Your task to perform on an android device: Search for the best deal on a 3d printer on aliexpress Image 0: 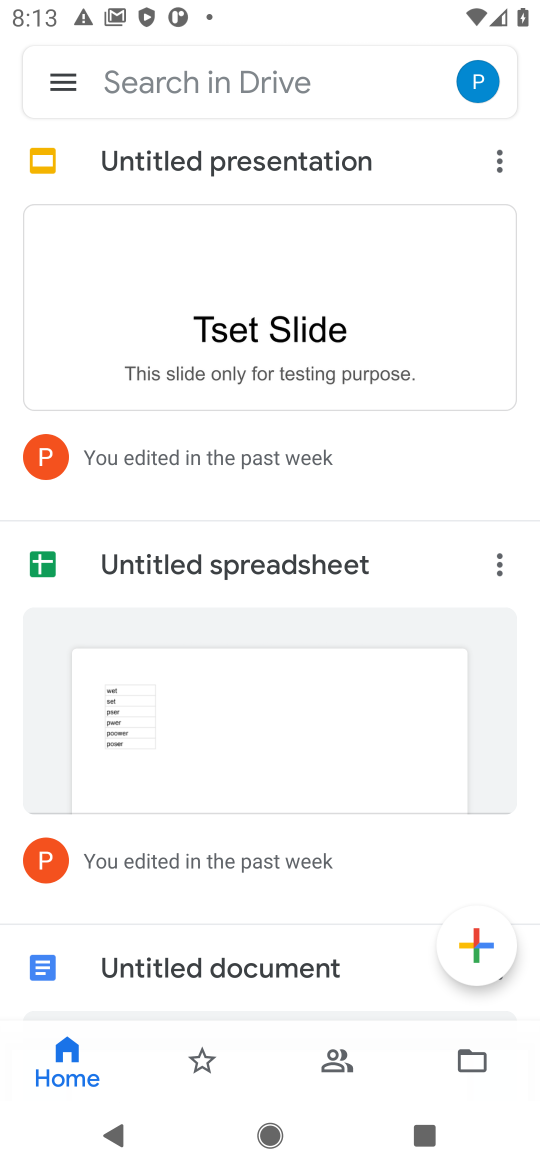
Step 0: press home button
Your task to perform on an android device: Search for the best deal on a 3d printer on aliexpress Image 1: 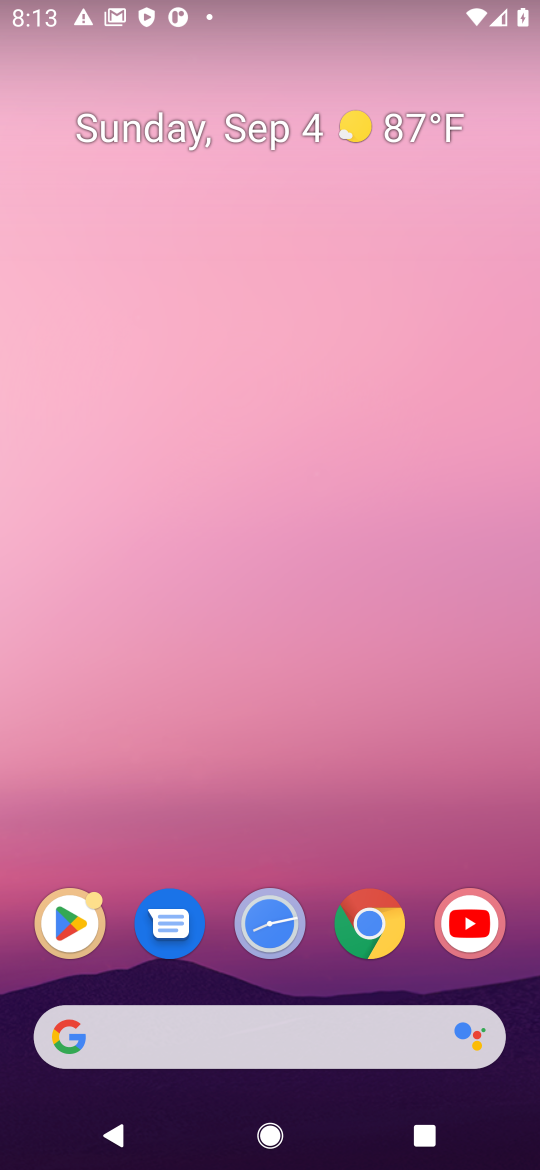
Step 1: click (376, 1043)
Your task to perform on an android device: Search for the best deal on a 3d printer on aliexpress Image 2: 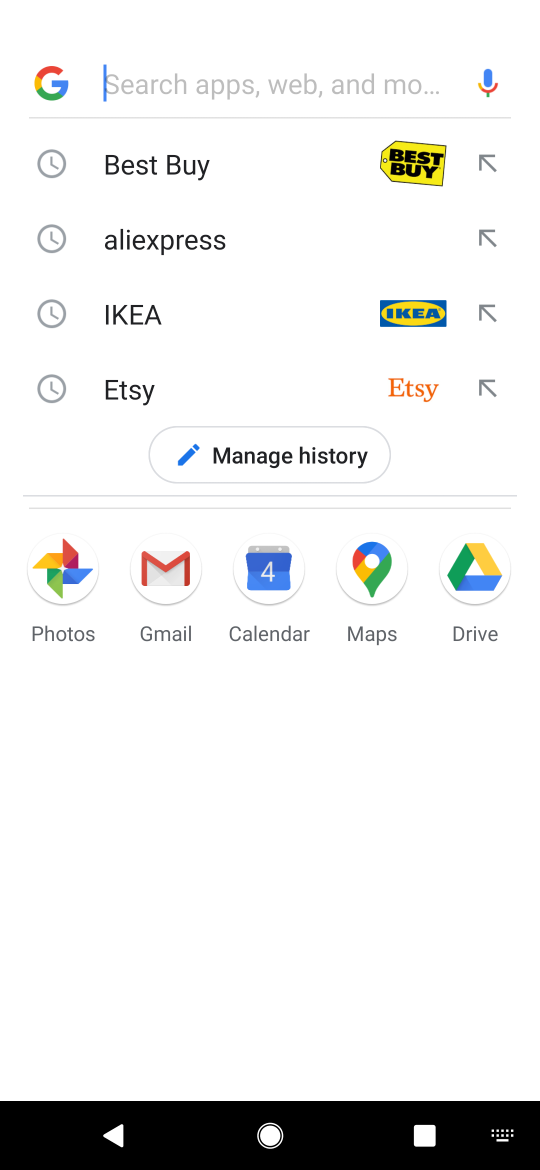
Step 2: press enter
Your task to perform on an android device: Search for the best deal on a 3d printer on aliexpress Image 3: 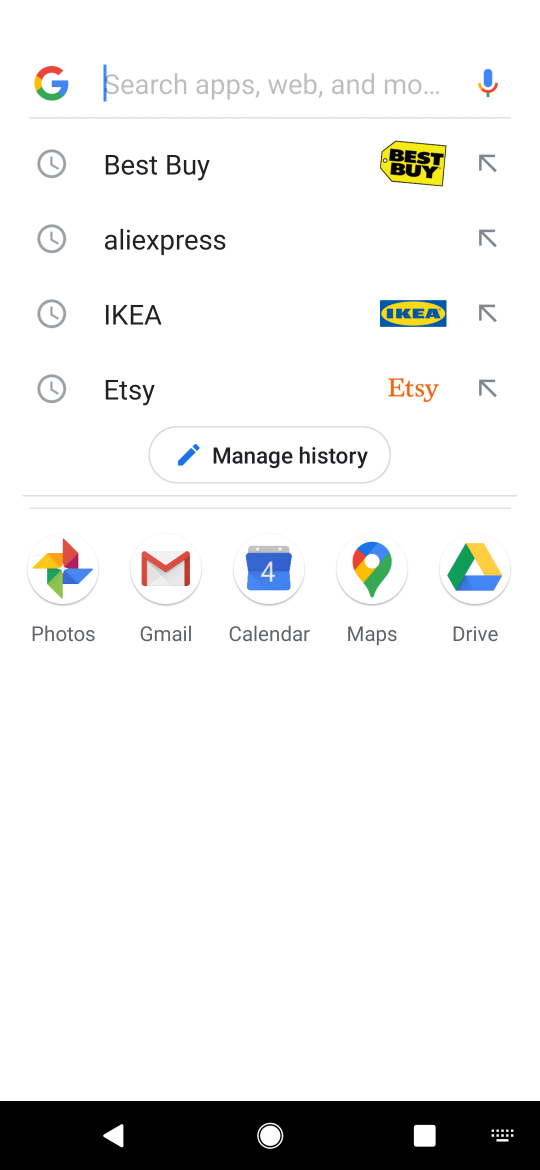
Step 3: type "aliexpress"
Your task to perform on an android device: Search for the best deal on a 3d printer on aliexpress Image 4: 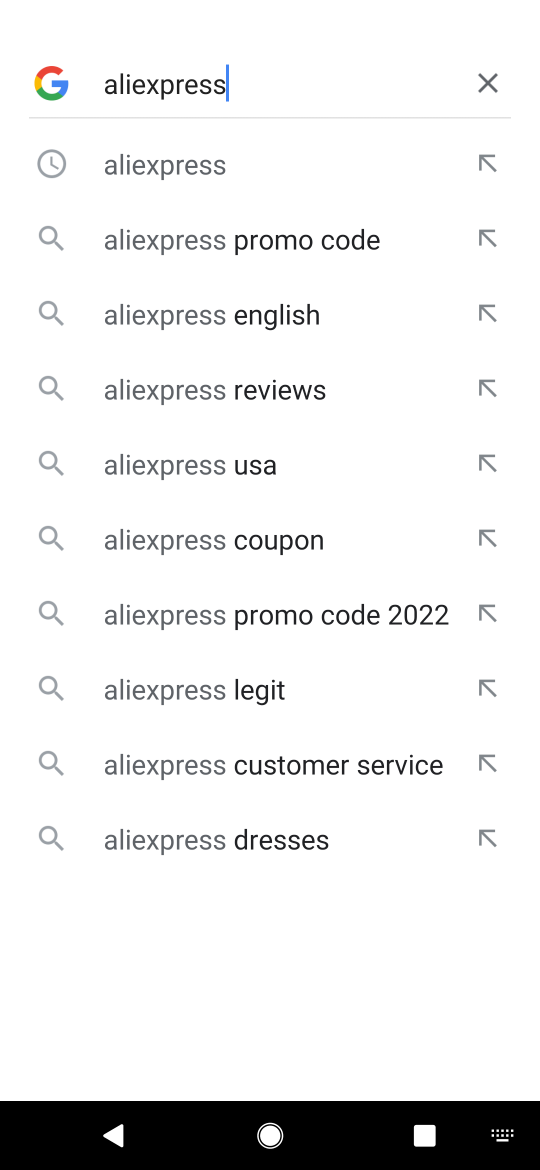
Step 4: click (223, 157)
Your task to perform on an android device: Search for the best deal on a 3d printer on aliexpress Image 5: 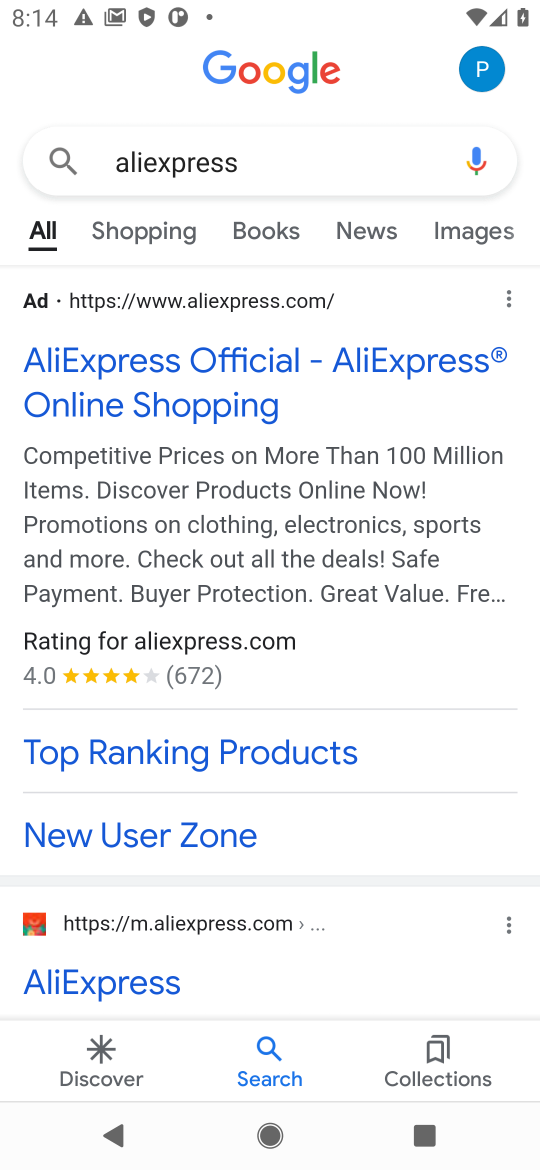
Step 5: click (273, 360)
Your task to perform on an android device: Search for the best deal on a 3d printer on aliexpress Image 6: 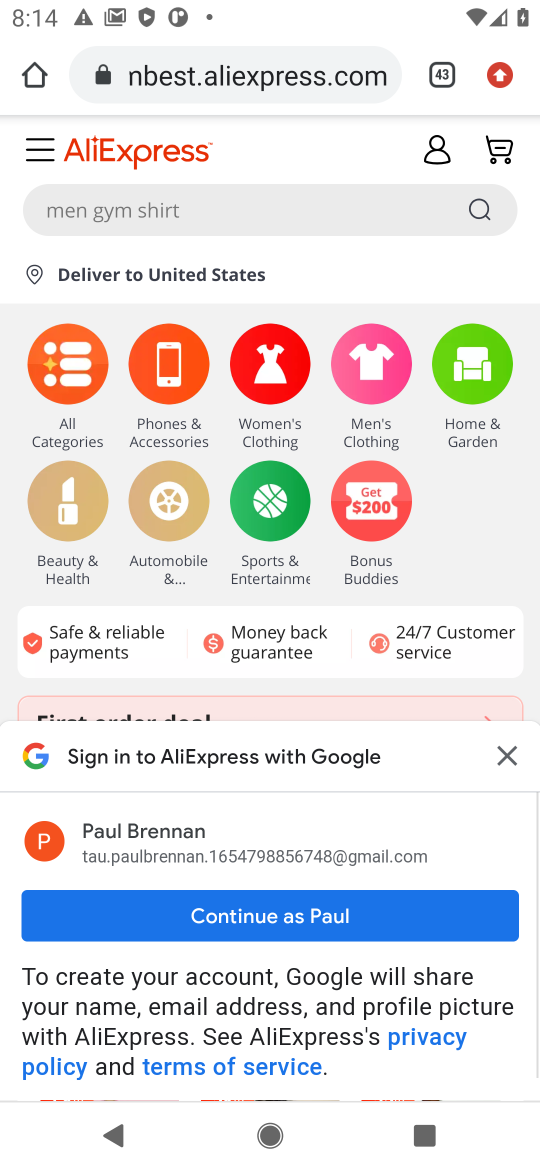
Step 6: click (272, 212)
Your task to perform on an android device: Search for the best deal on a 3d printer on aliexpress Image 7: 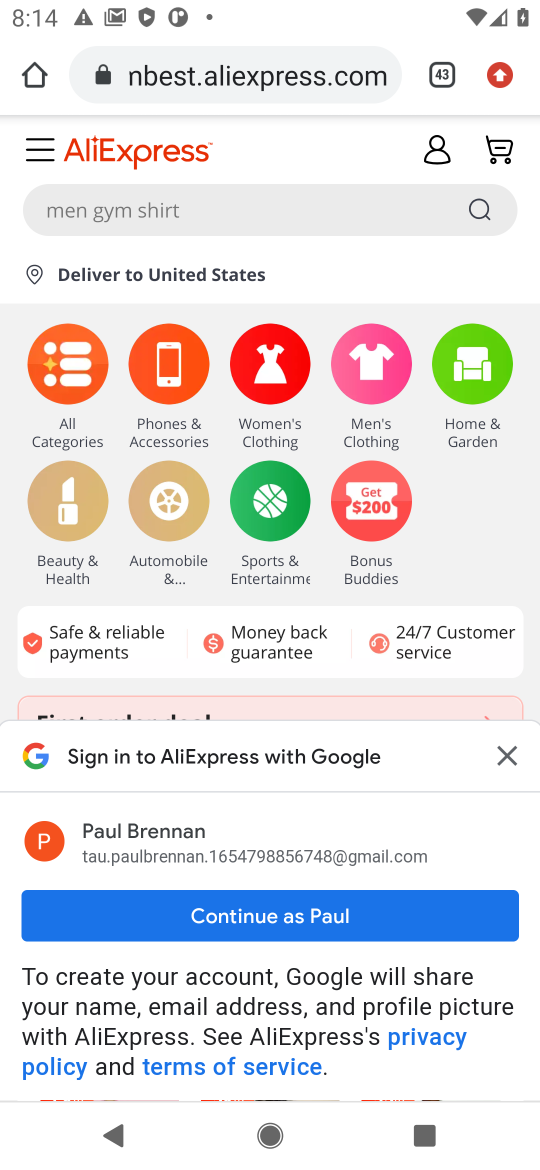
Step 7: click (219, 216)
Your task to perform on an android device: Search for the best deal on a 3d printer on aliexpress Image 8: 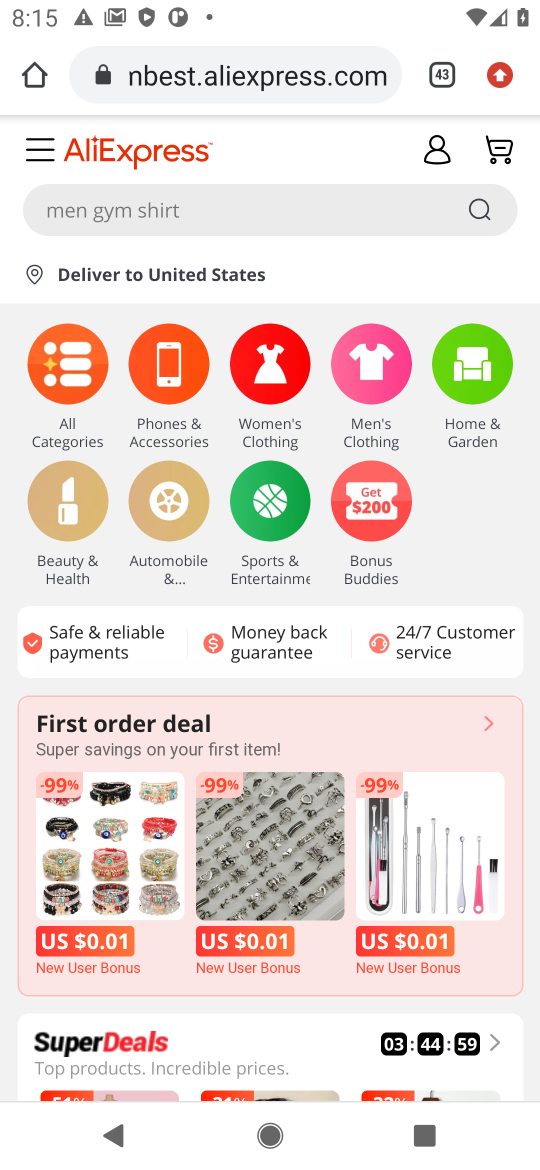
Step 8: click (134, 197)
Your task to perform on an android device: Search for the best deal on a 3d printer on aliexpress Image 9: 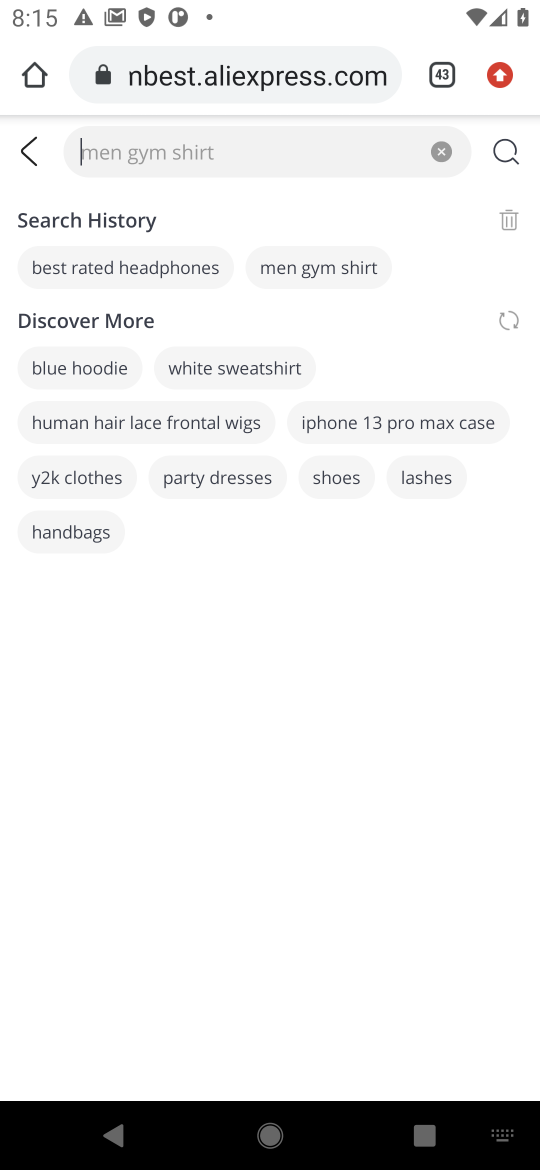
Step 9: type "best deal on a 3d printer "
Your task to perform on an android device: Search for the best deal on a 3d printer on aliexpress Image 10: 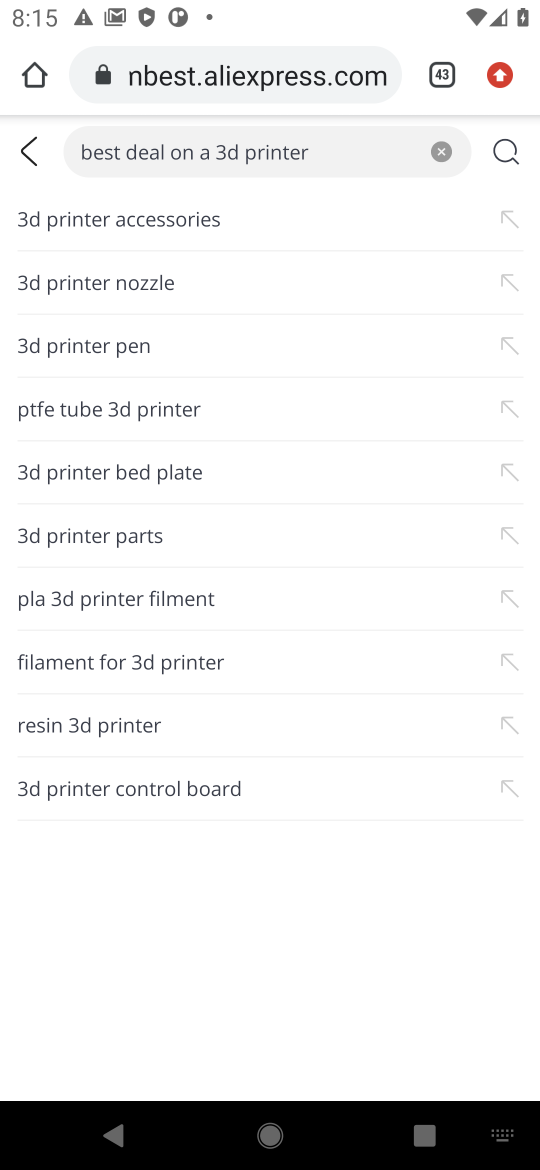
Step 10: click (504, 149)
Your task to perform on an android device: Search for the best deal on a 3d printer on aliexpress Image 11: 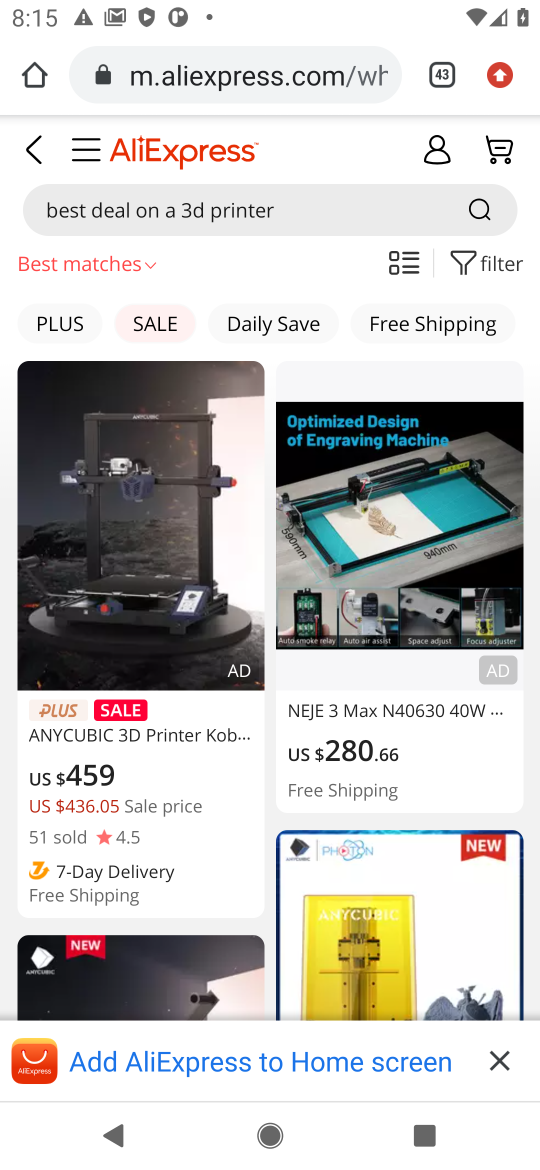
Step 11: task complete